Your task to perform on an android device: open device folders in google photos Image 0: 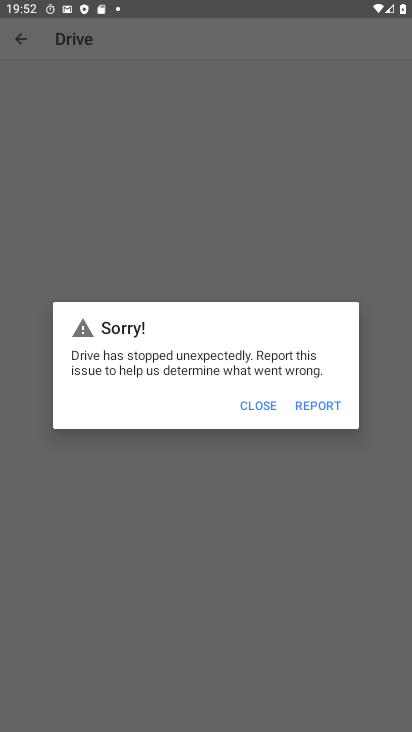
Step 0: press home button
Your task to perform on an android device: open device folders in google photos Image 1: 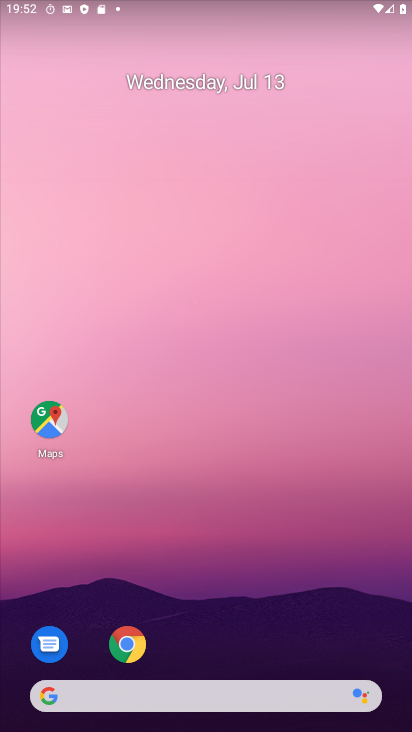
Step 1: drag from (317, 589) to (283, 66)
Your task to perform on an android device: open device folders in google photos Image 2: 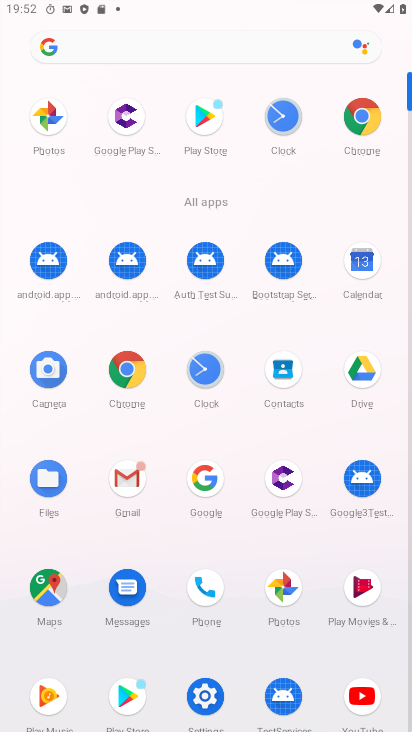
Step 2: click (285, 580)
Your task to perform on an android device: open device folders in google photos Image 3: 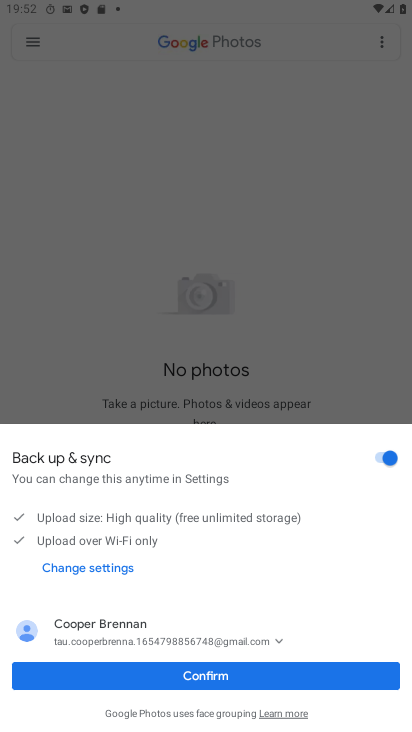
Step 3: click (269, 679)
Your task to perform on an android device: open device folders in google photos Image 4: 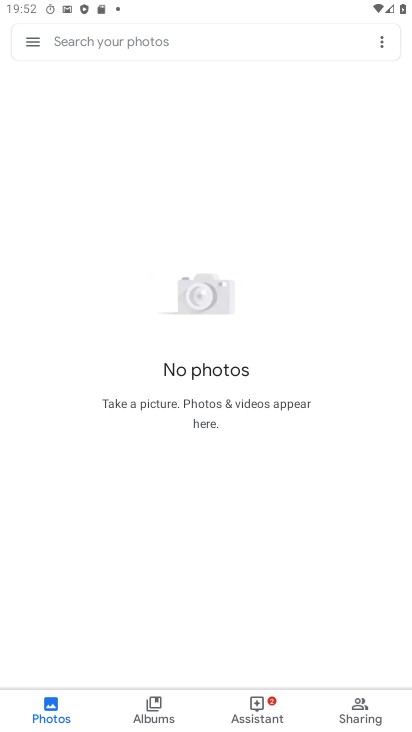
Step 4: click (26, 41)
Your task to perform on an android device: open device folders in google photos Image 5: 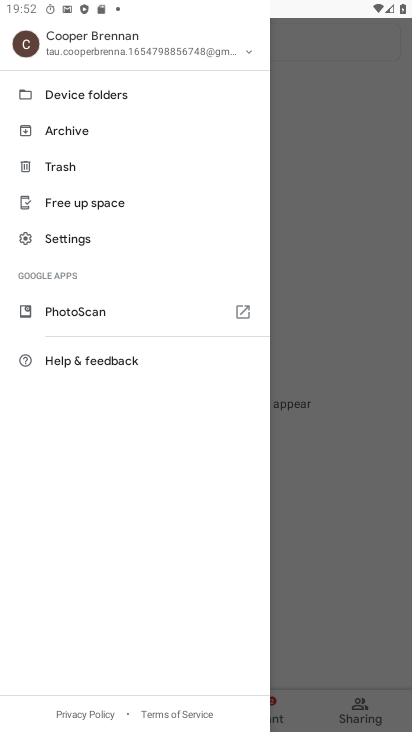
Step 5: click (53, 91)
Your task to perform on an android device: open device folders in google photos Image 6: 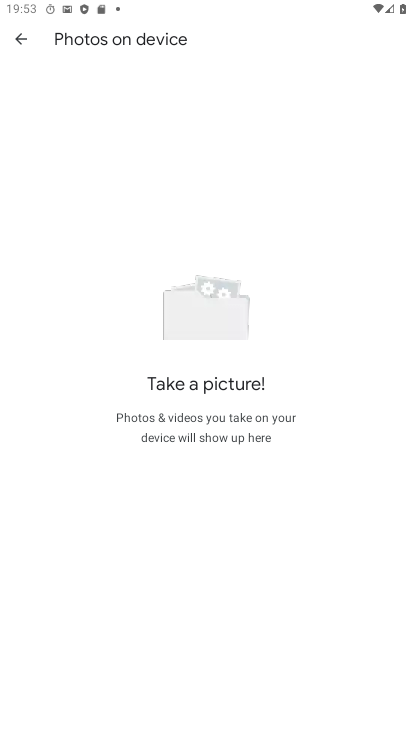
Step 6: task complete